Your task to perform on an android device: turn off notifications settings in the gmail app Image 0: 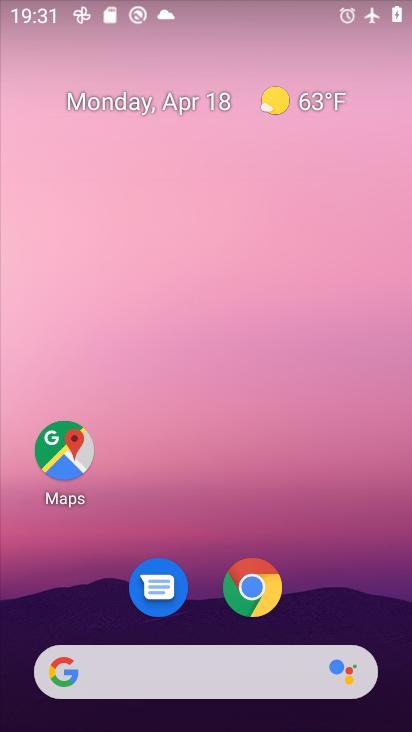
Step 0: drag from (317, 605) to (385, 0)
Your task to perform on an android device: turn off notifications settings in the gmail app Image 1: 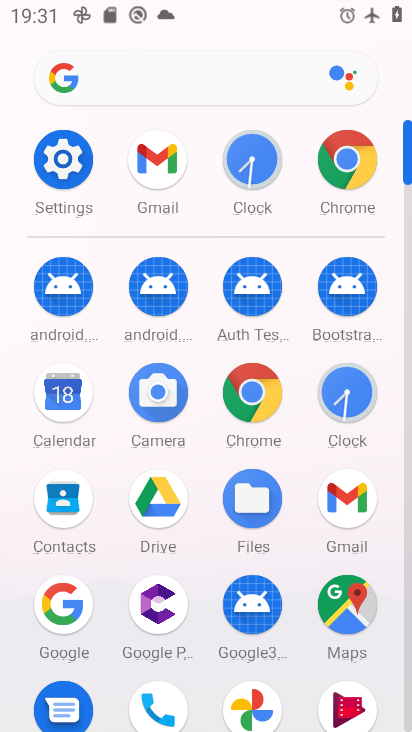
Step 1: click (69, 165)
Your task to perform on an android device: turn off notifications settings in the gmail app Image 2: 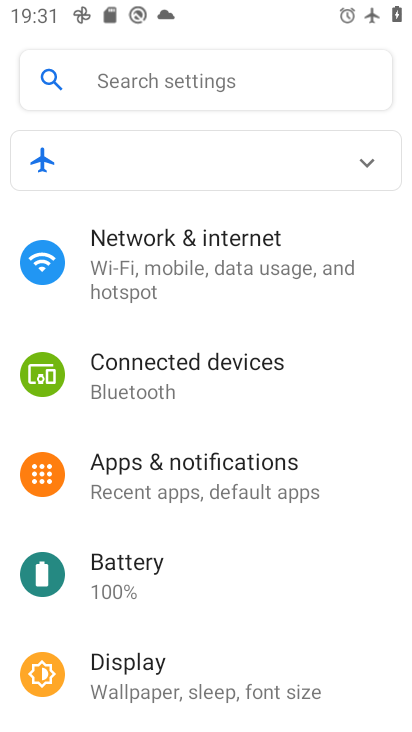
Step 2: press home button
Your task to perform on an android device: turn off notifications settings in the gmail app Image 3: 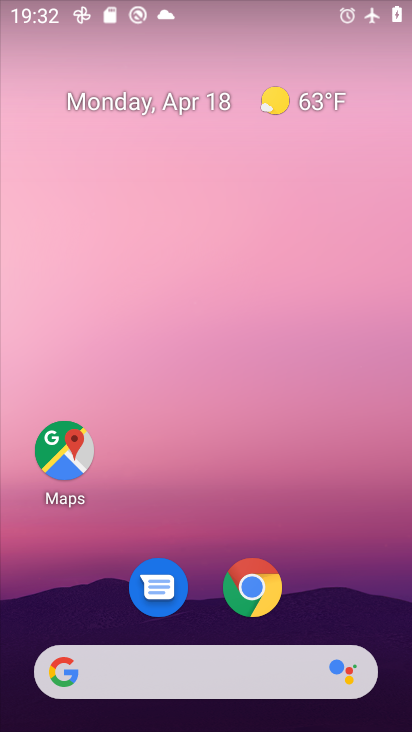
Step 3: drag from (310, 595) to (326, 0)
Your task to perform on an android device: turn off notifications settings in the gmail app Image 4: 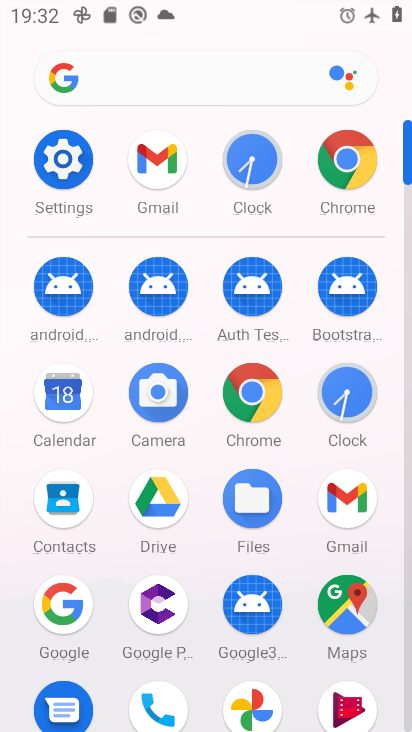
Step 4: click (361, 536)
Your task to perform on an android device: turn off notifications settings in the gmail app Image 5: 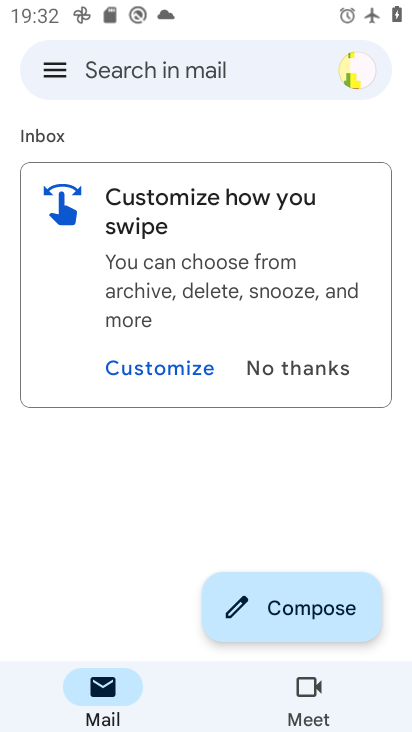
Step 5: click (47, 68)
Your task to perform on an android device: turn off notifications settings in the gmail app Image 6: 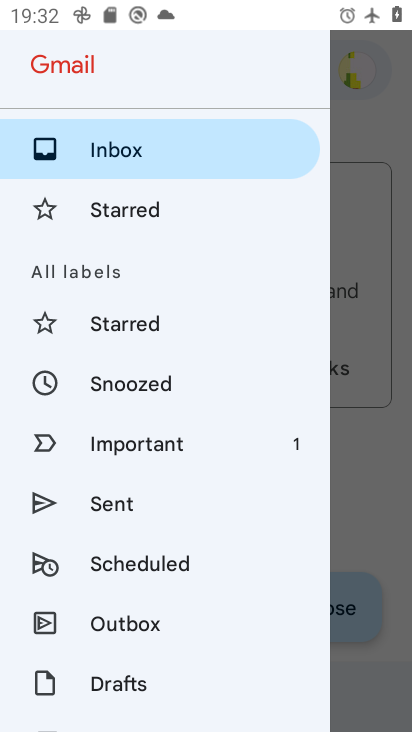
Step 6: drag from (54, 575) to (185, 178)
Your task to perform on an android device: turn off notifications settings in the gmail app Image 7: 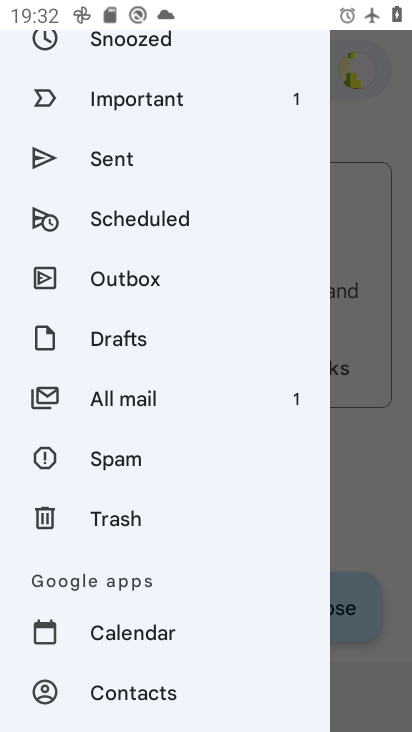
Step 7: drag from (144, 679) to (204, 276)
Your task to perform on an android device: turn off notifications settings in the gmail app Image 8: 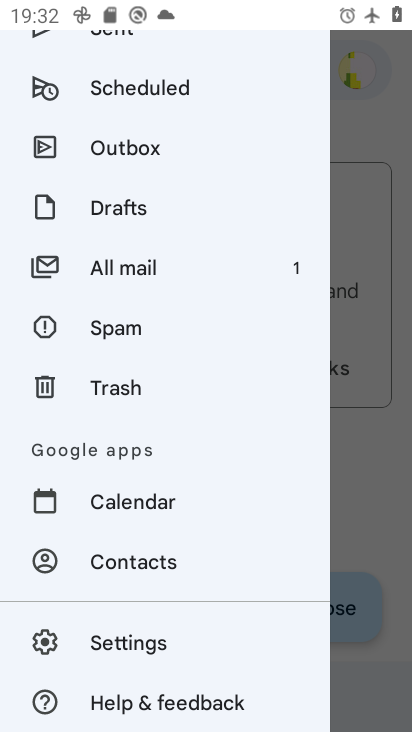
Step 8: click (160, 632)
Your task to perform on an android device: turn off notifications settings in the gmail app Image 9: 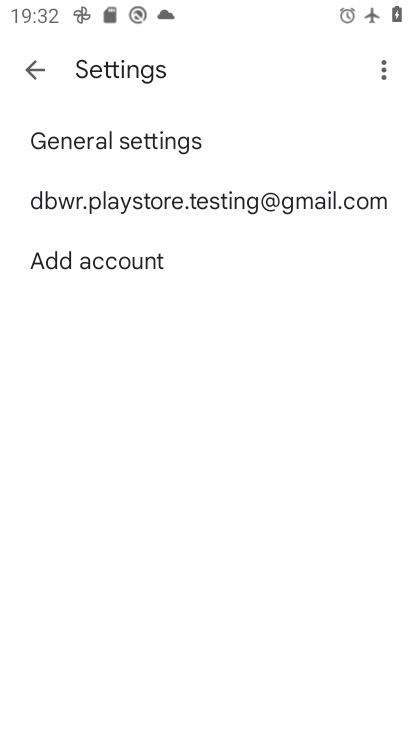
Step 9: click (191, 126)
Your task to perform on an android device: turn off notifications settings in the gmail app Image 10: 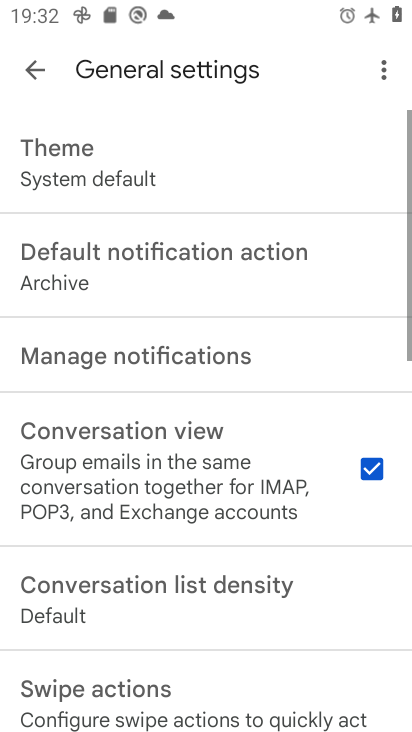
Step 10: click (201, 332)
Your task to perform on an android device: turn off notifications settings in the gmail app Image 11: 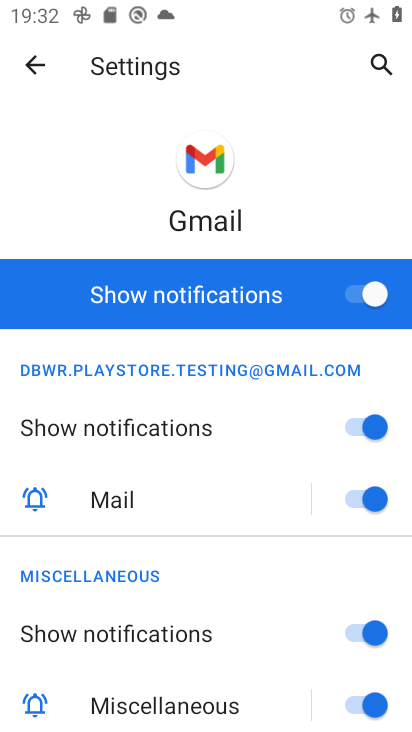
Step 11: click (376, 297)
Your task to perform on an android device: turn off notifications settings in the gmail app Image 12: 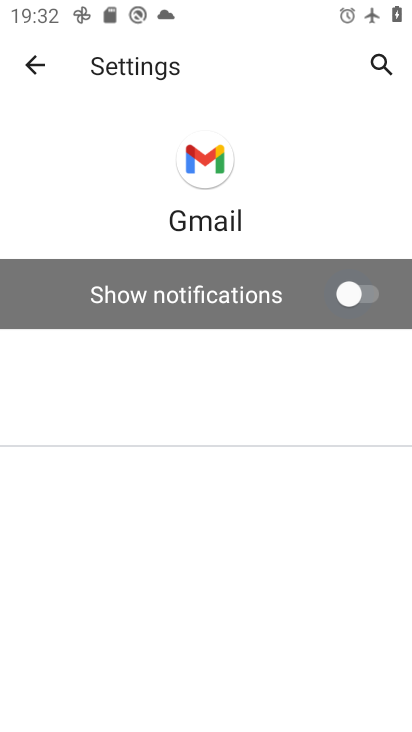
Step 12: task complete